Your task to perform on an android device: toggle translation in the chrome app Image 0: 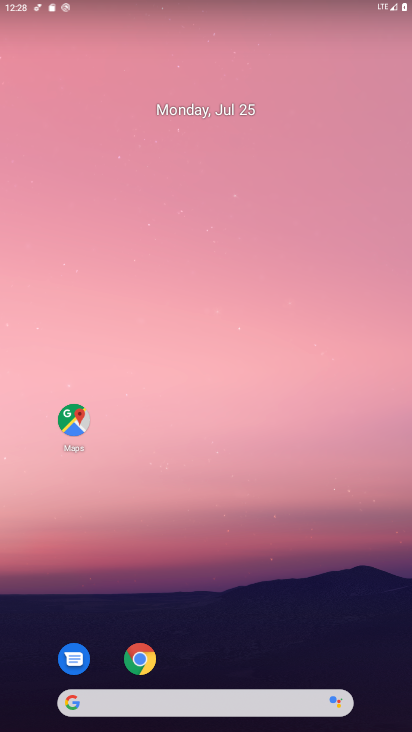
Step 0: click (138, 657)
Your task to perform on an android device: toggle translation in the chrome app Image 1: 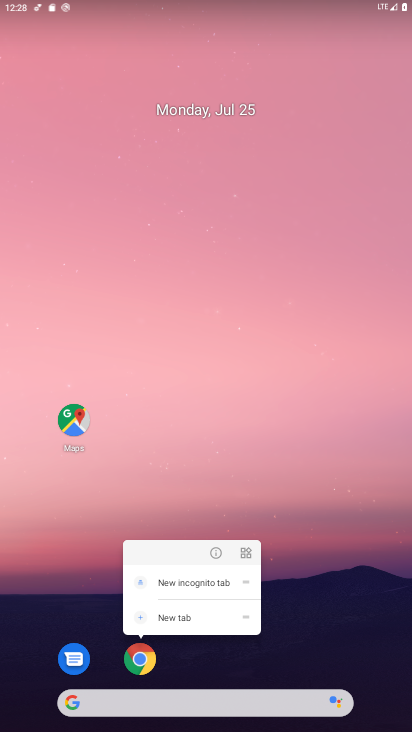
Step 1: click (138, 657)
Your task to perform on an android device: toggle translation in the chrome app Image 2: 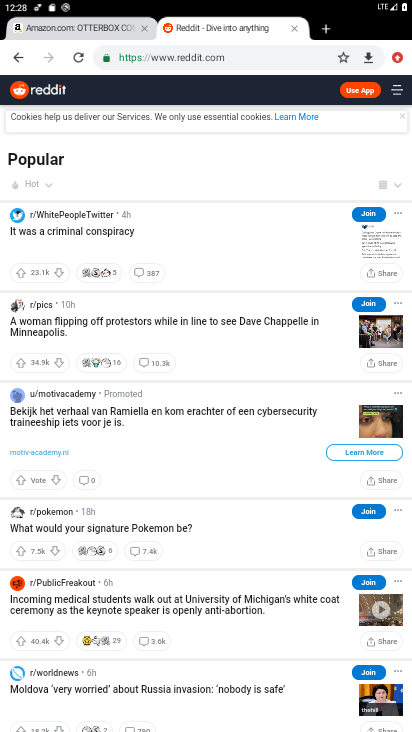
Step 2: click (395, 52)
Your task to perform on an android device: toggle translation in the chrome app Image 3: 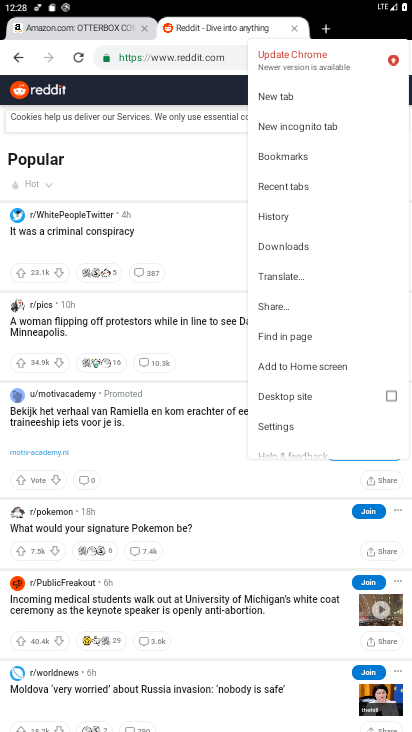
Step 3: click (297, 423)
Your task to perform on an android device: toggle translation in the chrome app Image 4: 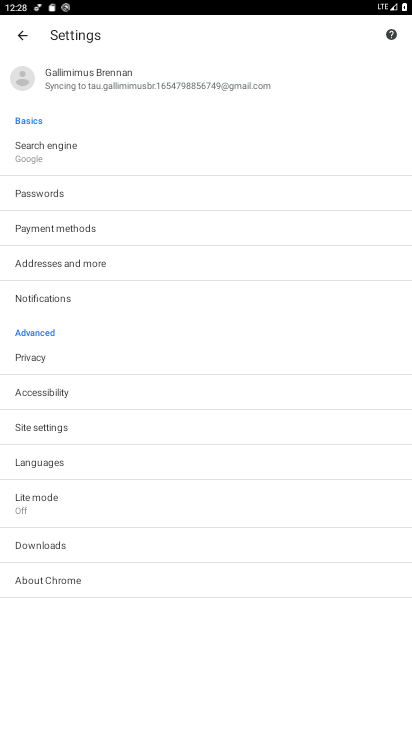
Step 4: click (83, 460)
Your task to perform on an android device: toggle translation in the chrome app Image 5: 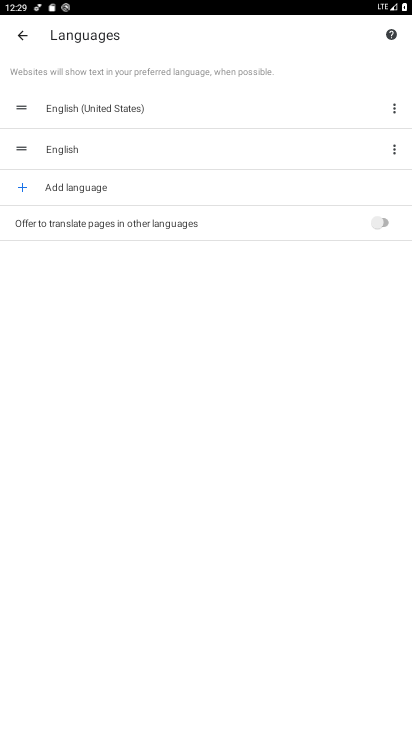
Step 5: click (380, 220)
Your task to perform on an android device: toggle translation in the chrome app Image 6: 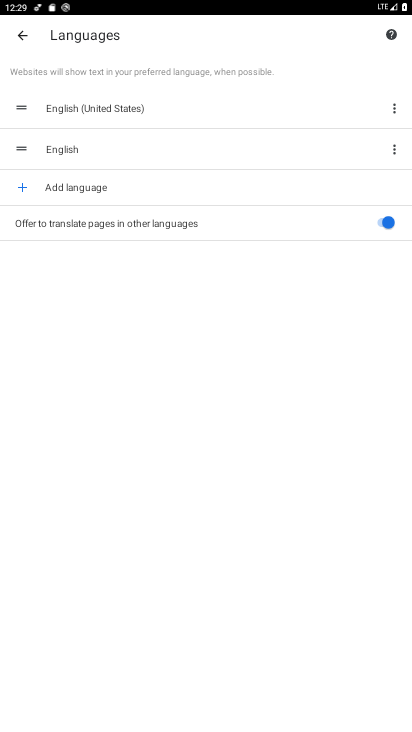
Step 6: task complete